Your task to perform on an android device: read, delete, or share a saved page in the chrome app Image 0: 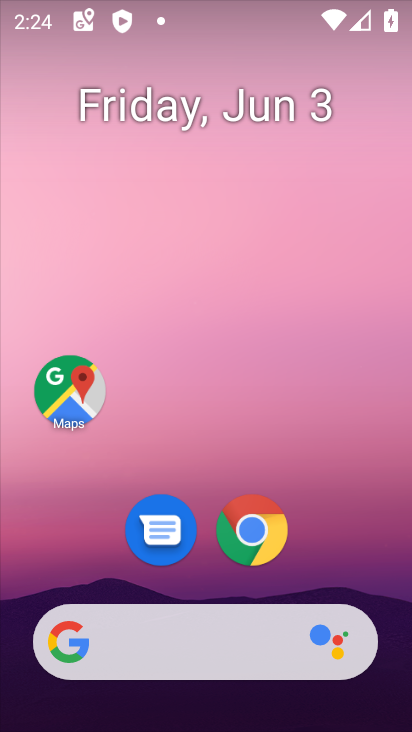
Step 0: click (259, 528)
Your task to perform on an android device: read, delete, or share a saved page in the chrome app Image 1: 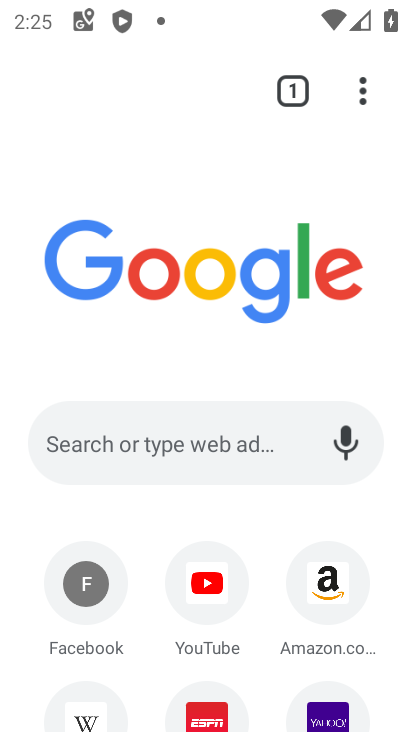
Step 1: click (357, 85)
Your task to perform on an android device: read, delete, or share a saved page in the chrome app Image 2: 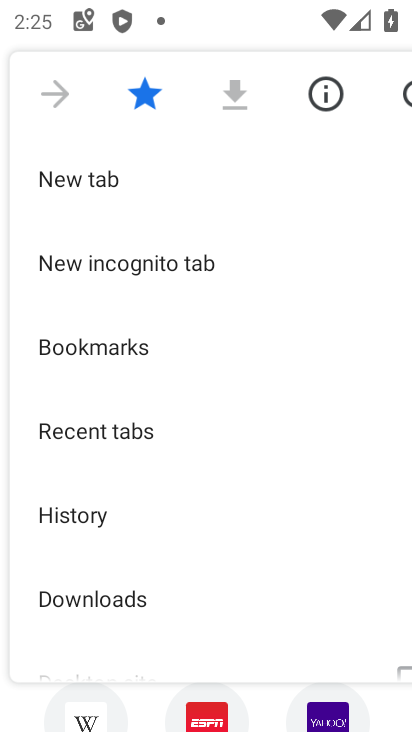
Step 2: click (100, 587)
Your task to perform on an android device: read, delete, or share a saved page in the chrome app Image 3: 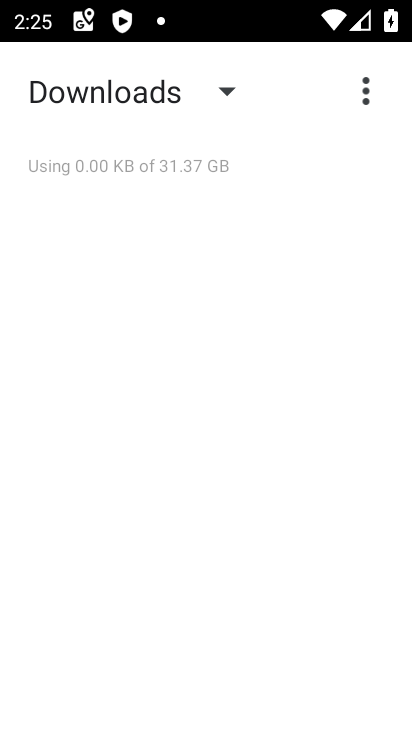
Step 3: task complete